Your task to perform on an android device: uninstall "Move to iOS" Image 0: 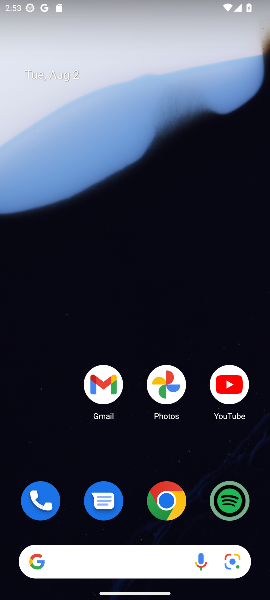
Step 0: drag from (134, 432) to (146, 0)
Your task to perform on an android device: uninstall "Move to iOS" Image 1: 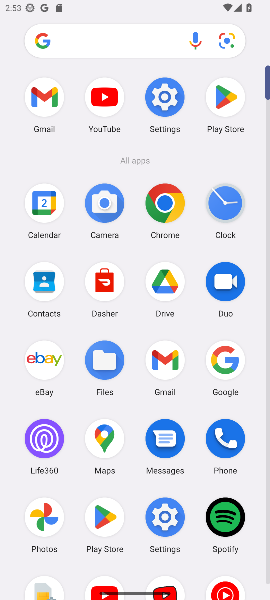
Step 1: click (225, 100)
Your task to perform on an android device: uninstall "Move to iOS" Image 2: 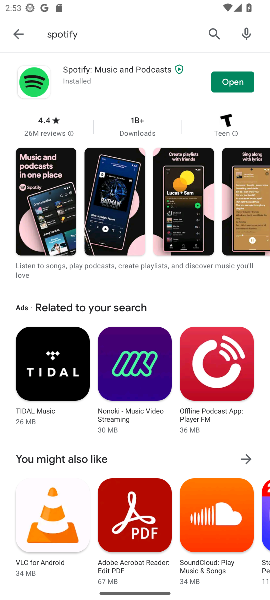
Step 2: click (214, 30)
Your task to perform on an android device: uninstall "Move to iOS" Image 3: 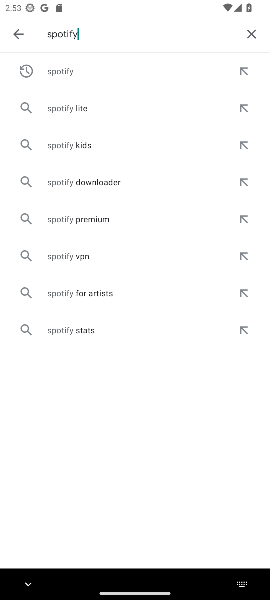
Step 3: click (254, 34)
Your task to perform on an android device: uninstall "Move to iOS" Image 4: 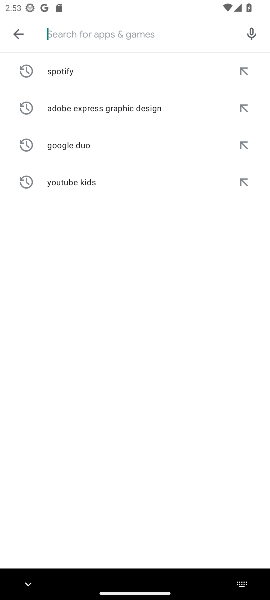
Step 4: type "Move to iOS"
Your task to perform on an android device: uninstall "Move to iOS" Image 5: 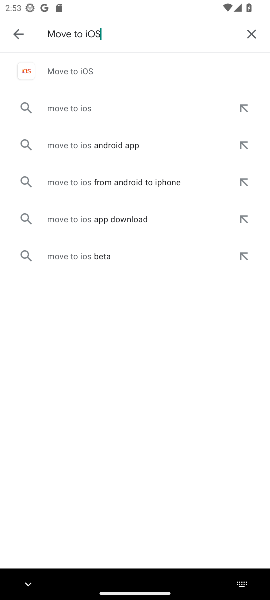
Step 5: click (56, 71)
Your task to perform on an android device: uninstall "Move to iOS" Image 6: 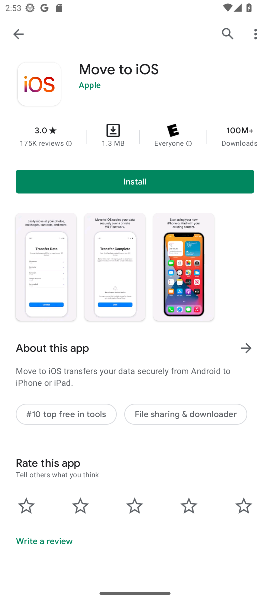
Step 6: task complete